Your task to perform on an android device: Turn on the flashlight Image 0: 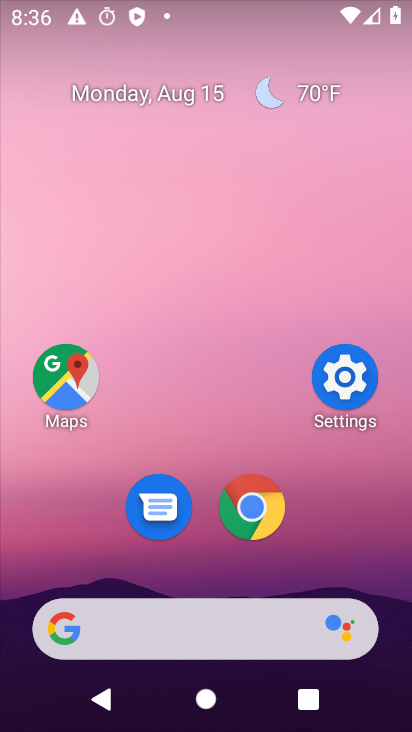
Step 0: press home button
Your task to perform on an android device: Turn on the flashlight Image 1: 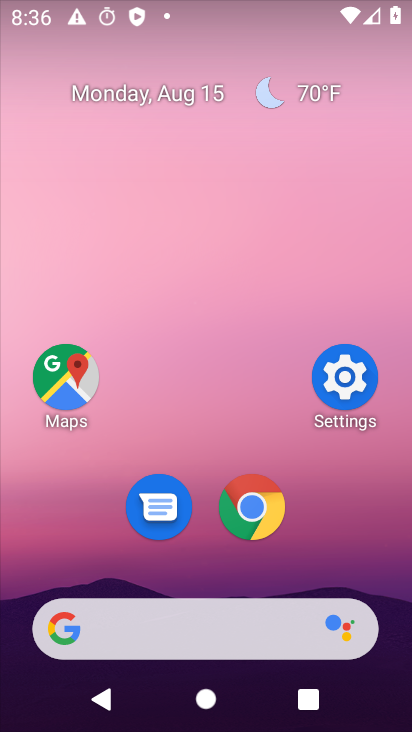
Step 1: task complete